Your task to perform on an android device: empty trash in the gmail app Image 0: 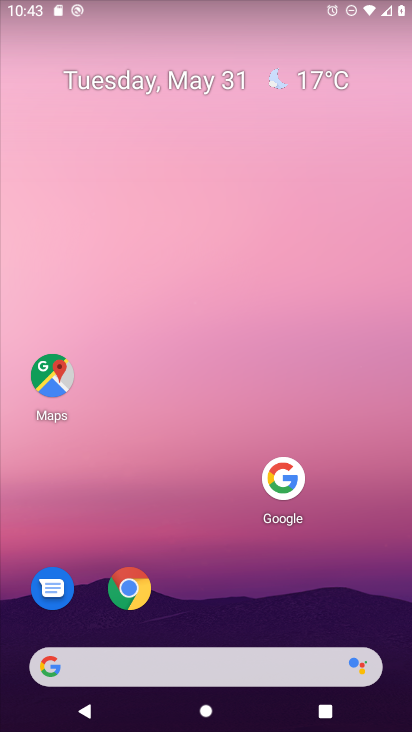
Step 0: drag from (206, 667) to (302, 56)
Your task to perform on an android device: empty trash in the gmail app Image 1: 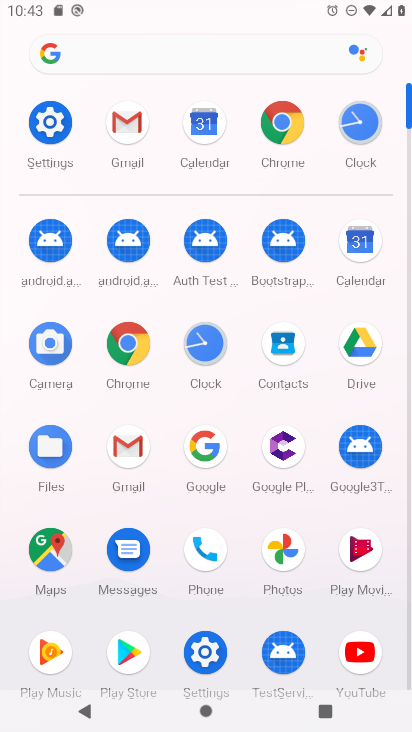
Step 1: click (126, 131)
Your task to perform on an android device: empty trash in the gmail app Image 2: 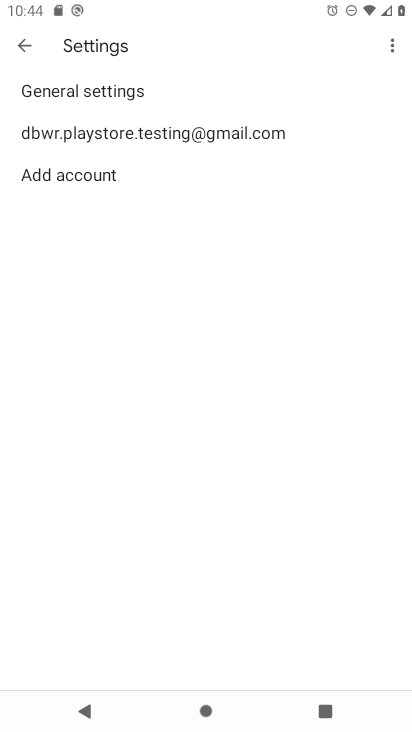
Step 2: click (19, 45)
Your task to perform on an android device: empty trash in the gmail app Image 3: 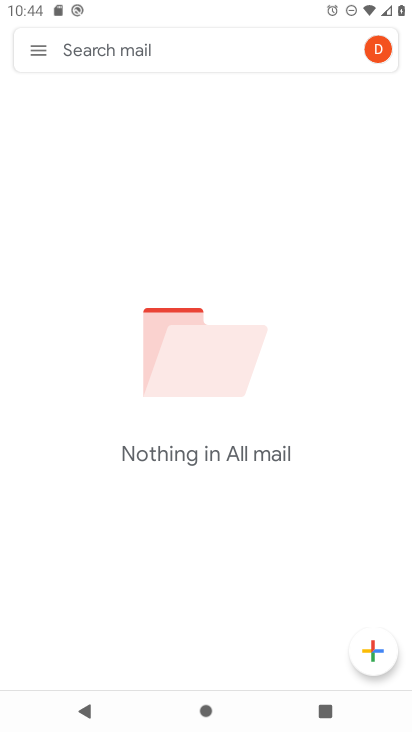
Step 3: click (41, 54)
Your task to perform on an android device: empty trash in the gmail app Image 4: 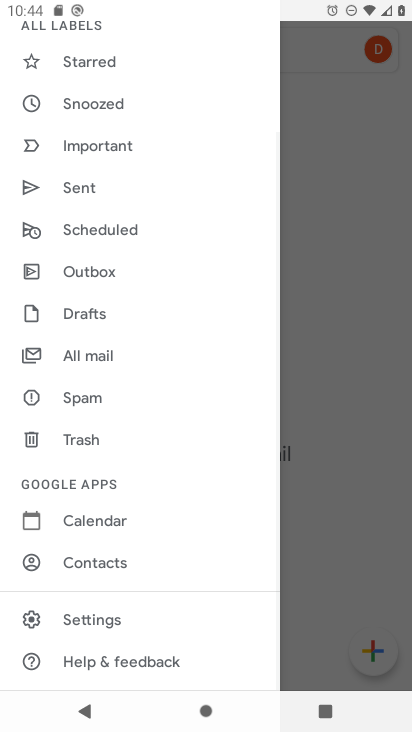
Step 4: click (82, 436)
Your task to perform on an android device: empty trash in the gmail app Image 5: 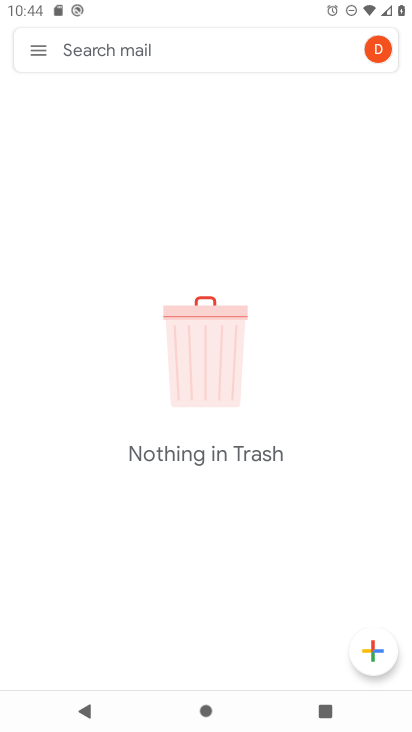
Step 5: task complete